Your task to perform on an android device: Open Youtube and go to "Your channel" Image 0: 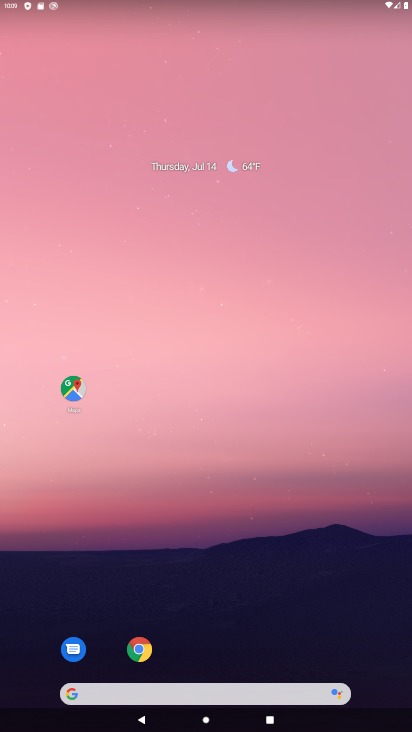
Step 0: drag from (268, 661) to (263, 123)
Your task to perform on an android device: Open Youtube and go to "Your channel" Image 1: 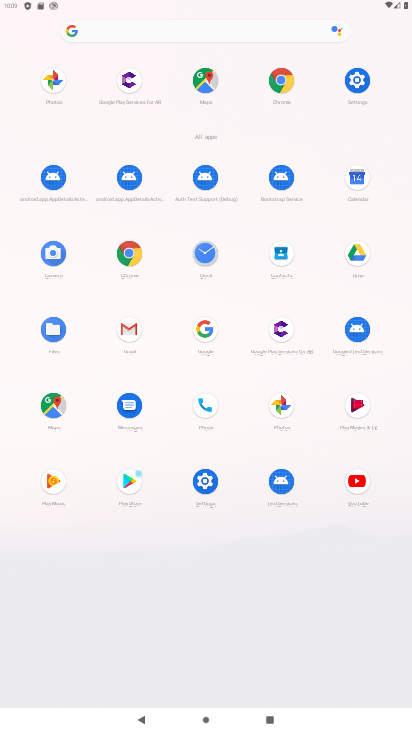
Step 1: click (350, 478)
Your task to perform on an android device: Open Youtube and go to "Your channel" Image 2: 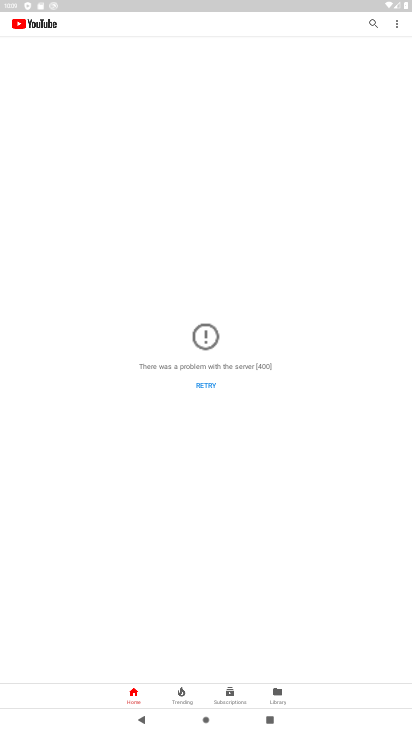
Step 2: task complete